Your task to perform on an android device: Open Google Chrome Image 0: 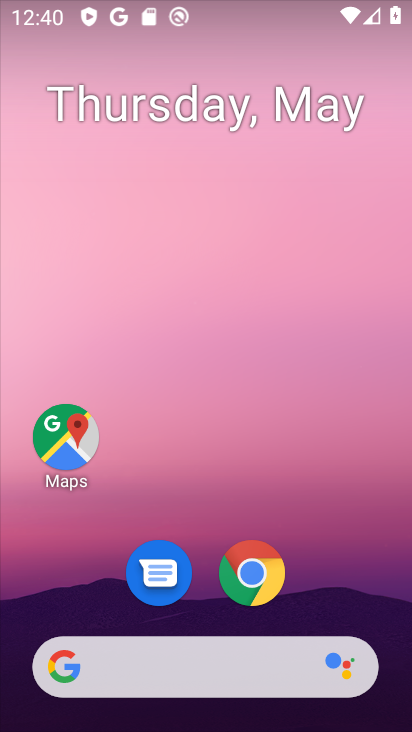
Step 0: drag from (295, 491) to (241, 46)
Your task to perform on an android device: Open Google Chrome Image 1: 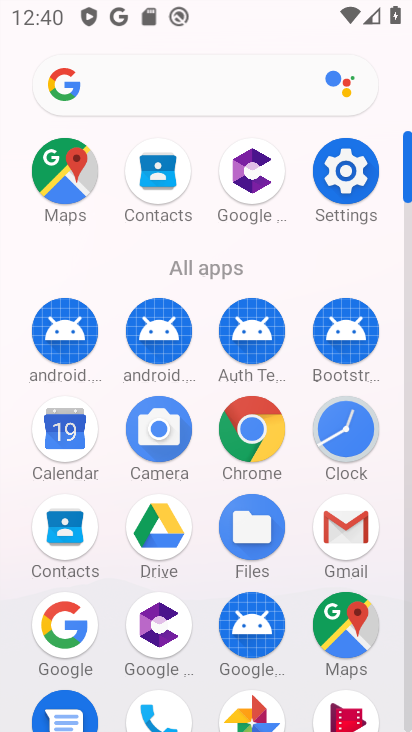
Step 1: click (252, 432)
Your task to perform on an android device: Open Google Chrome Image 2: 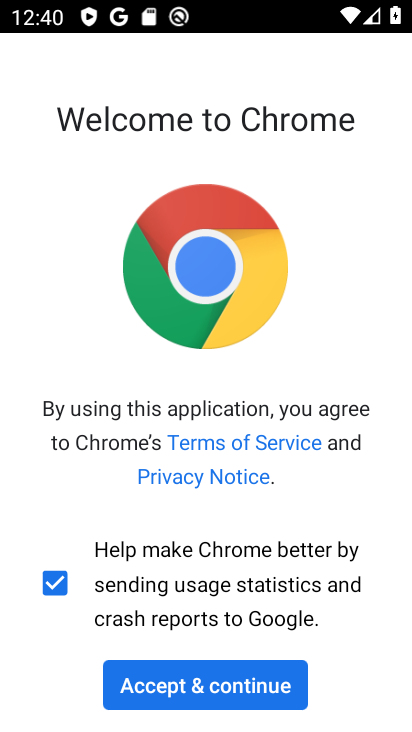
Step 2: click (251, 683)
Your task to perform on an android device: Open Google Chrome Image 3: 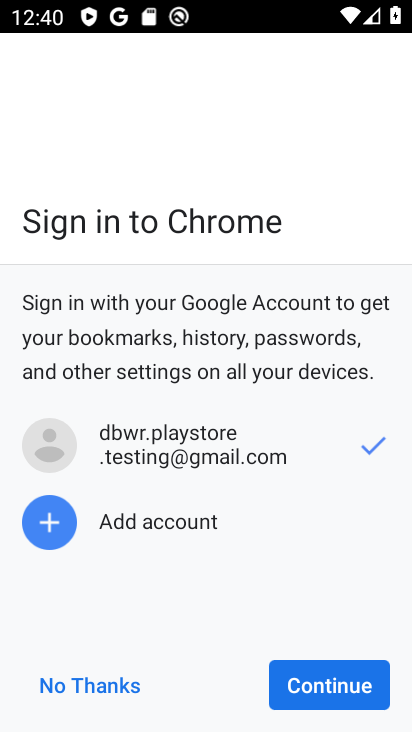
Step 3: click (343, 679)
Your task to perform on an android device: Open Google Chrome Image 4: 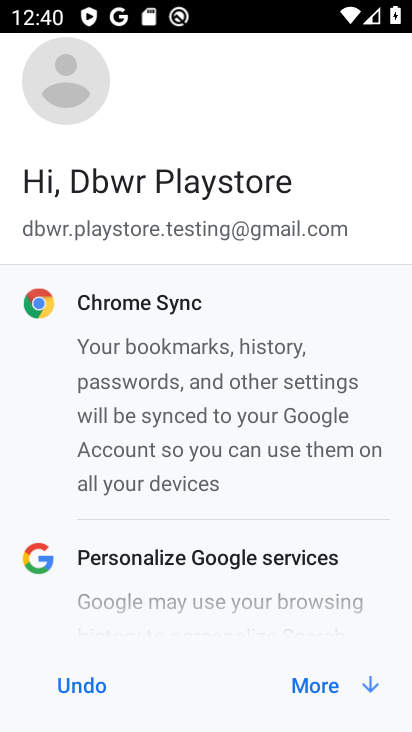
Step 4: click (309, 683)
Your task to perform on an android device: Open Google Chrome Image 5: 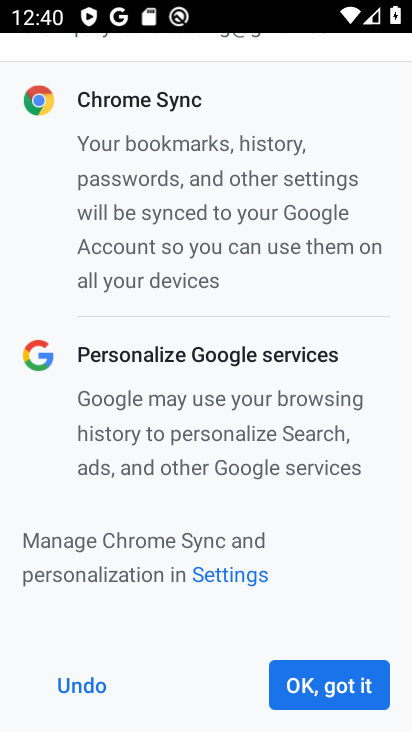
Step 5: click (309, 683)
Your task to perform on an android device: Open Google Chrome Image 6: 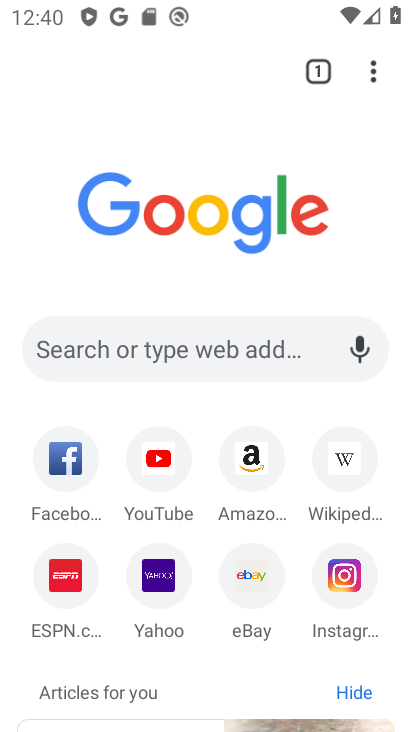
Step 6: task complete